Your task to perform on an android device: turn on bluetooth scan Image 0: 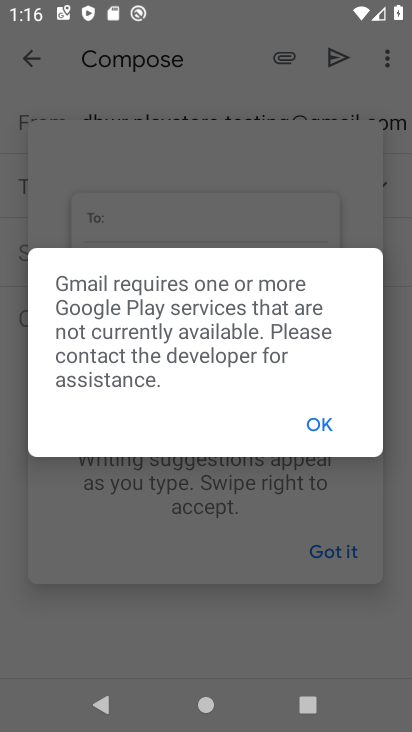
Step 0: press home button
Your task to perform on an android device: turn on bluetooth scan Image 1: 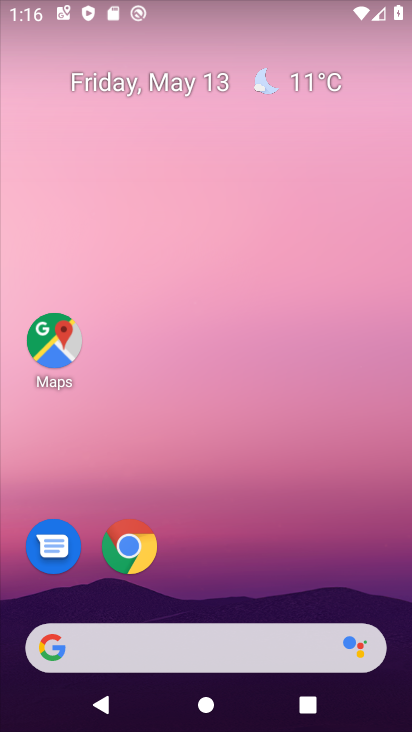
Step 1: drag from (269, 497) to (269, 179)
Your task to perform on an android device: turn on bluetooth scan Image 2: 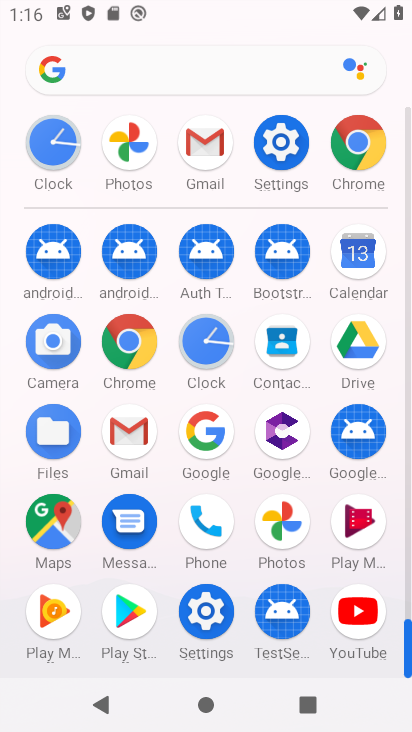
Step 2: click (277, 159)
Your task to perform on an android device: turn on bluetooth scan Image 3: 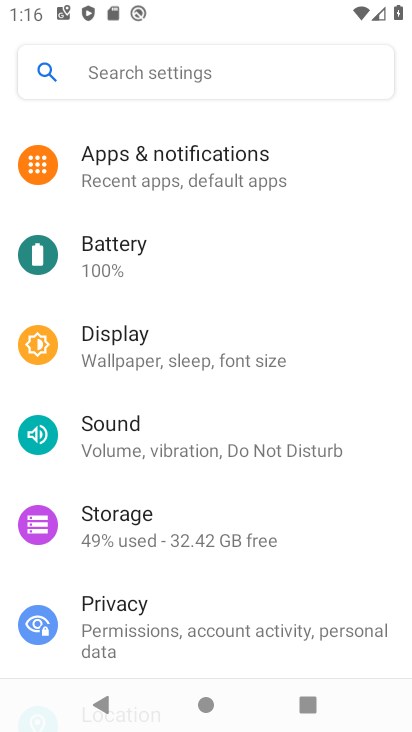
Step 3: drag from (217, 286) to (191, 410)
Your task to perform on an android device: turn on bluetooth scan Image 4: 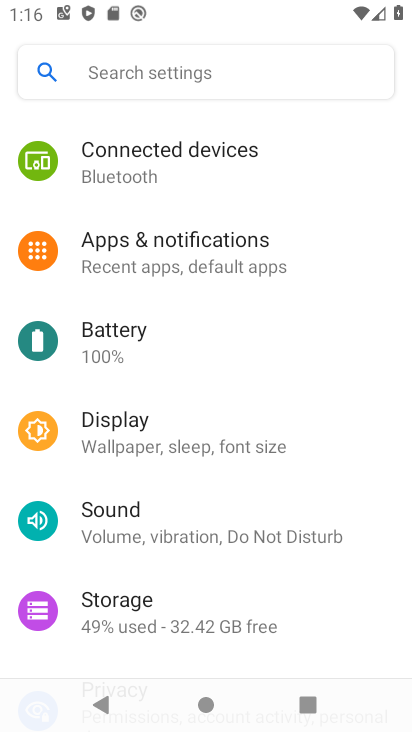
Step 4: drag from (205, 313) to (184, 433)
Your task to perform on an android device: turn on bluetooth scan Image 5: 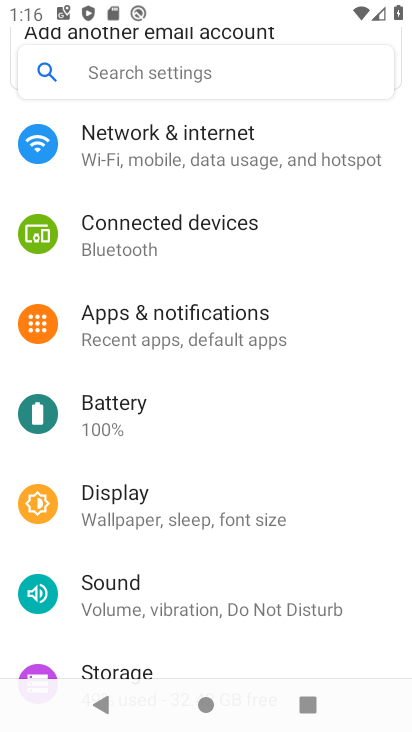
Step 5: click (161, 248)
Your task to perform on an android device: turn on bluetooth scan Image 6: 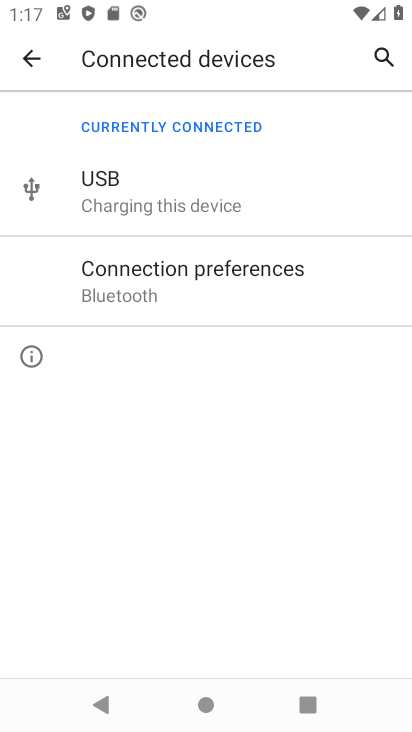
Step 6: click (186, 282)
Your task to perform on an android device: turn on bluetooth scan Image 7: 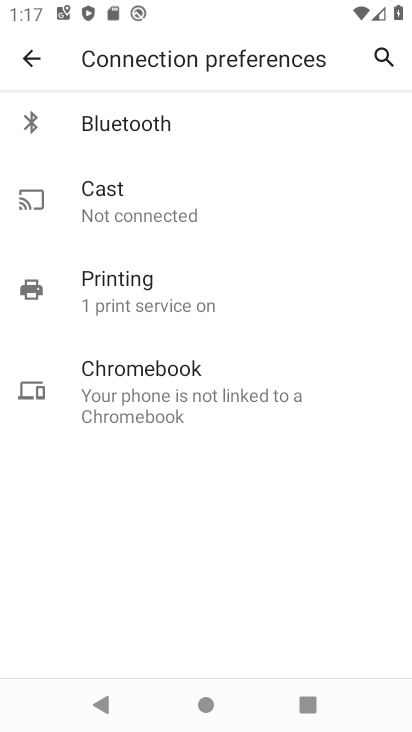
Step 7: click (115, 131)
Your task to perform on an android device: turn on bluetooth scan Image 8: 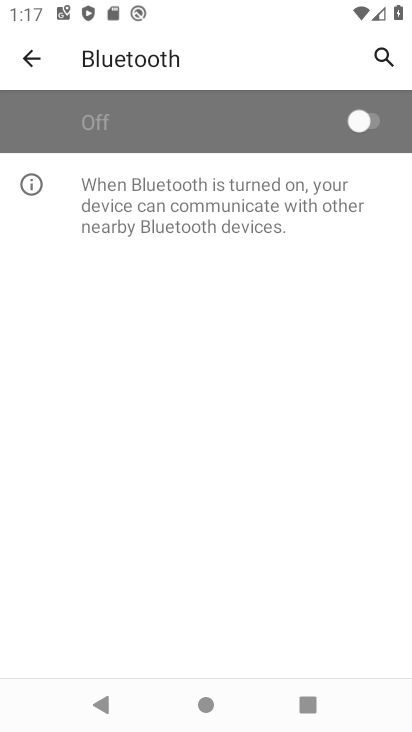
Step 8: task complete